Your task to perform on an android device: check android version Image 0: 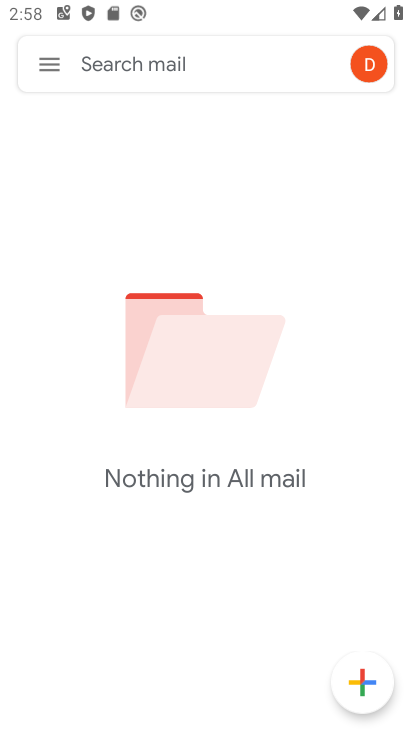
Step 0: press home button
Your task to perform on an android device: check android version Image 1: 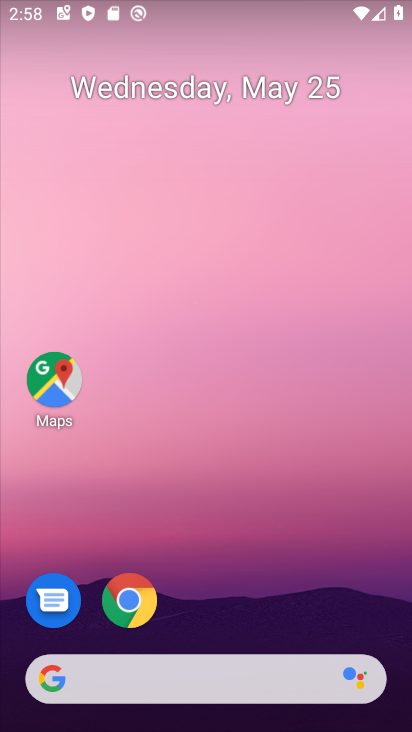
Step 1: drag from (8, 651) to (204, 142)
Your task to perform on an android device: check android version Image 2: 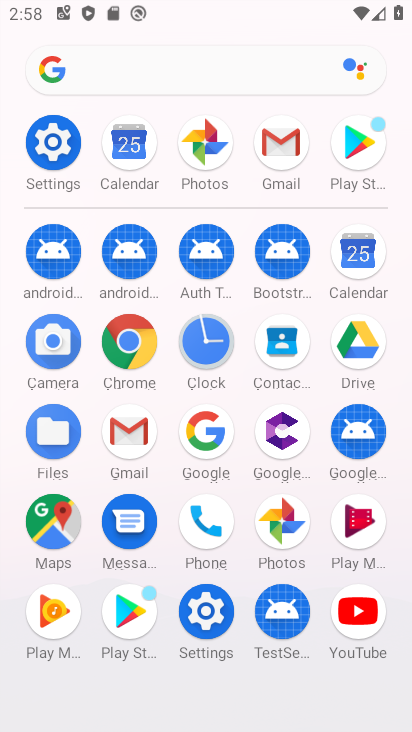
Step 2: click (61, 134)
Your task to perform on an android device: check android version Image 3: 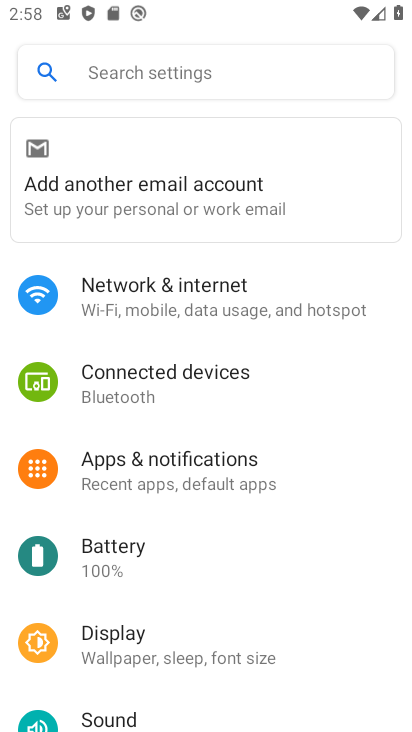
Step 3: drag from (0, 662) to (191, 214)
Your task to perform on an android device: check android version Image 4: 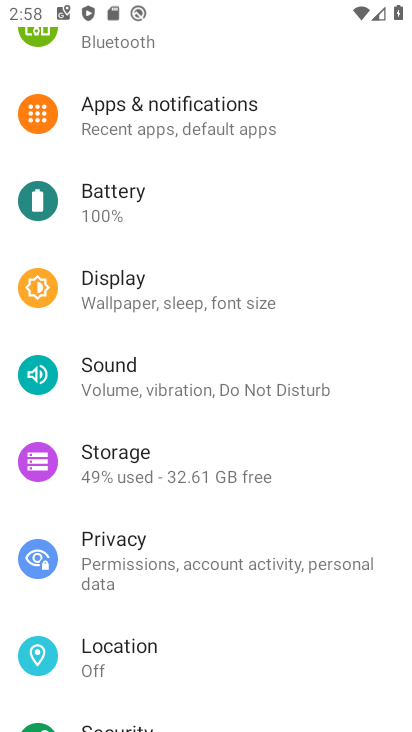
Step 4: drag from (190, 674) to (272, 216)
Your task to perform on an android device: check android version Image 5: 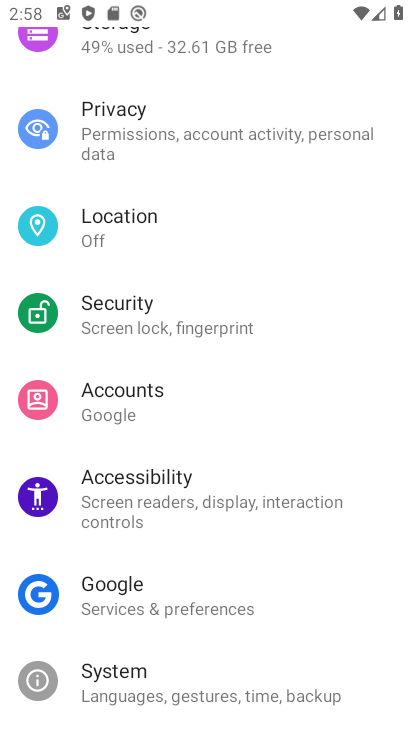
Step 5: drag from (188, 663) to (305, 200)
Your task to perform on an android device: check android version Image 6: 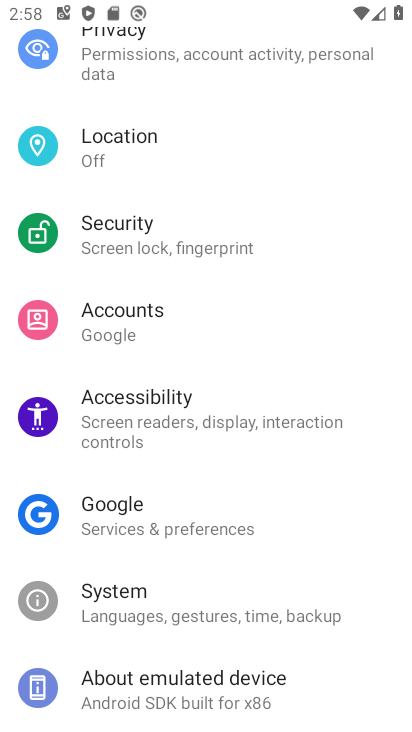
Step 6: click (145, 684)
Your task to perform on an android device: check android version Image 7: 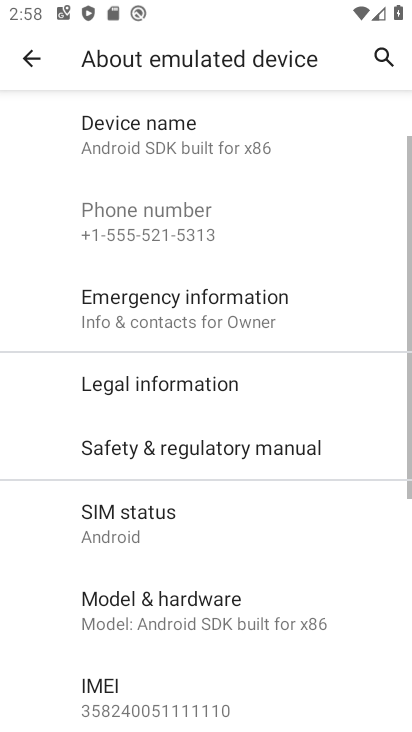
Step 7: task complete